Your task to perform on an android device: Go to internet settings Image 0: 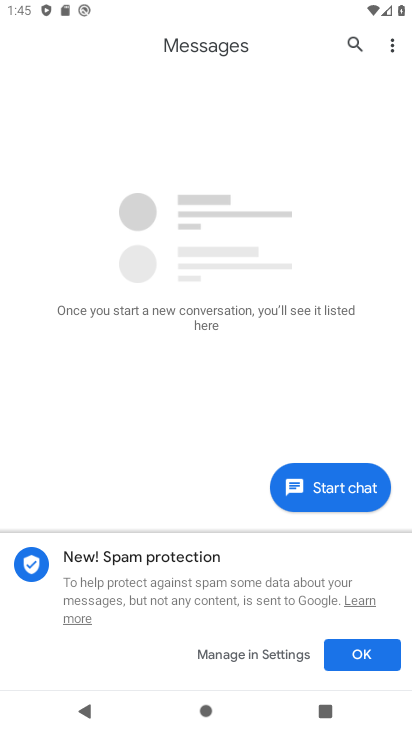
Step 0: press home button
Your task to perform on an android device: Go to internet settings Image 1: 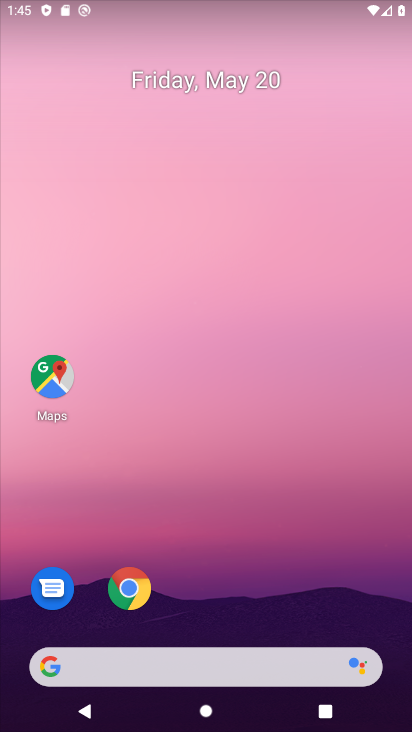
Step 1: drag from (134, 675) to (190, 208)
Your task to perform on an android device: Go to internet settings Image 2: 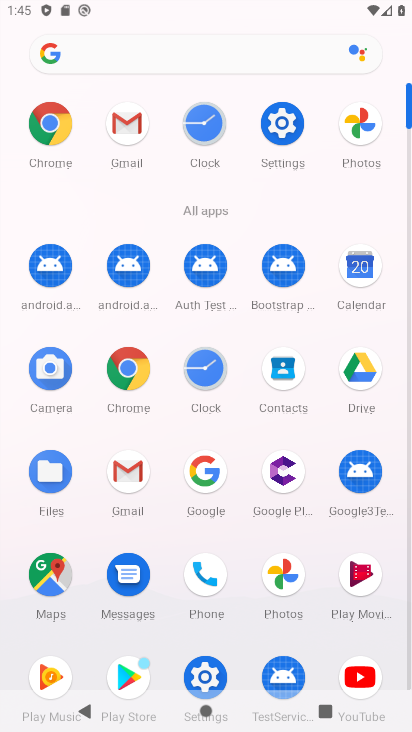
Step 2: click (262, 134)
Your task to perform on an android device: Go to internet settings Image 3: 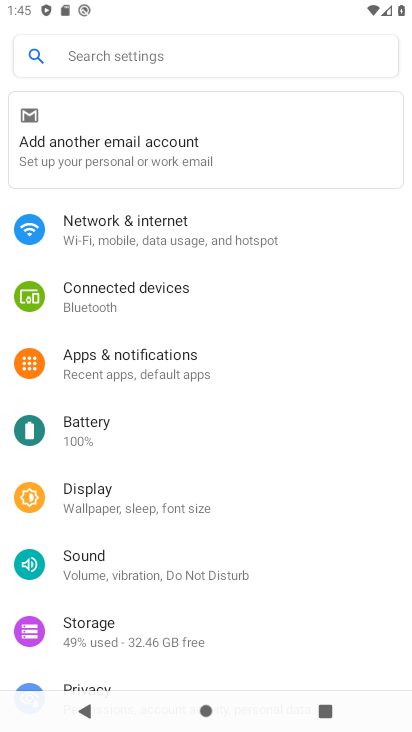
Step 3: click (102, 242)
Your task to perform on an android device: Go to internet settings Image 4: 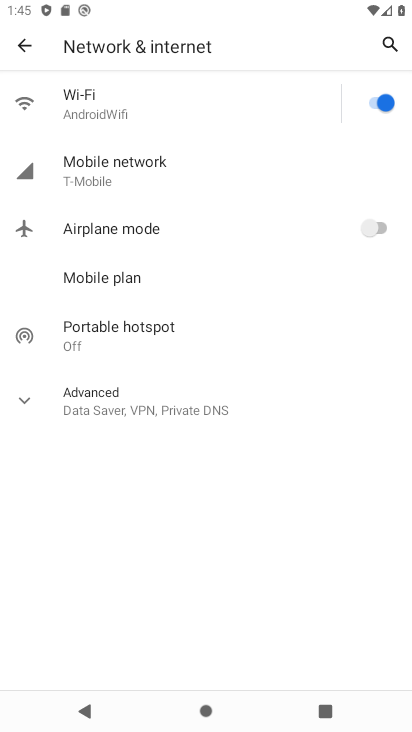
Step 4: task complete